Your task to perform on an android device: Open calendar and show me the second week of next month Image 0: 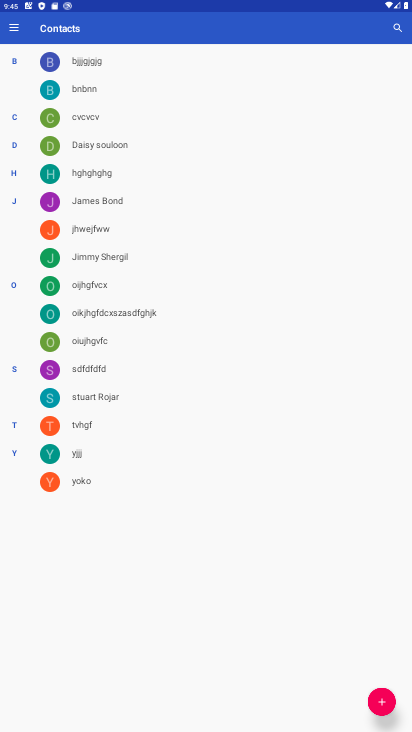
Step 0: press home button
Your task to perform on an android device: Open calendar and show me the second week of next month Image 1: 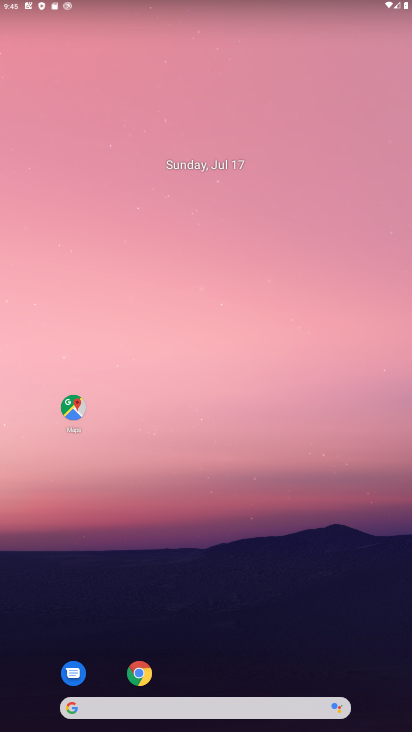
Step 1: drag from (225, 679) to (249, 80)
Your task to perform on an android device: Open calendar and show me the second week of next month Image 2: 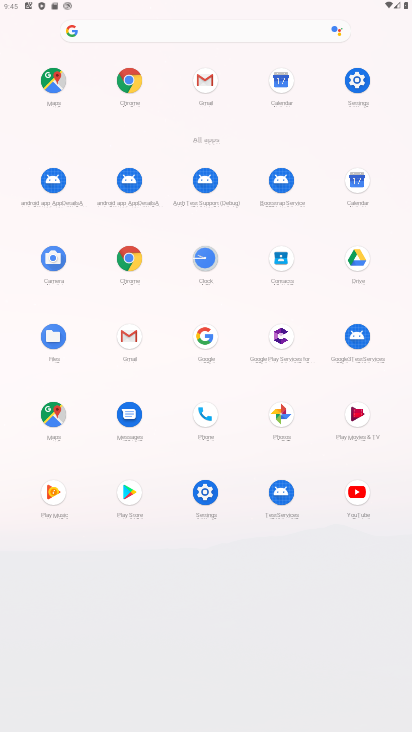
Step 2: click (357, 177)
Your task to perform on an android device: Open calendar and show me the second week of next month Image 3: 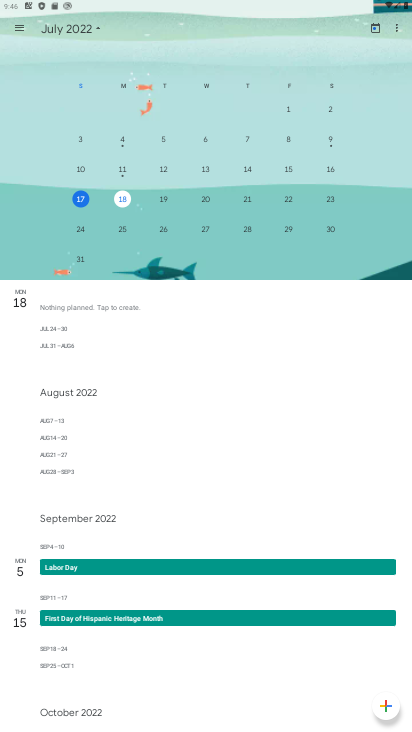
Step 3: drag from (380, 268) to (0, 235)
Your task to perform on an android device: Open calendar and show me the second week of next month Image 4: 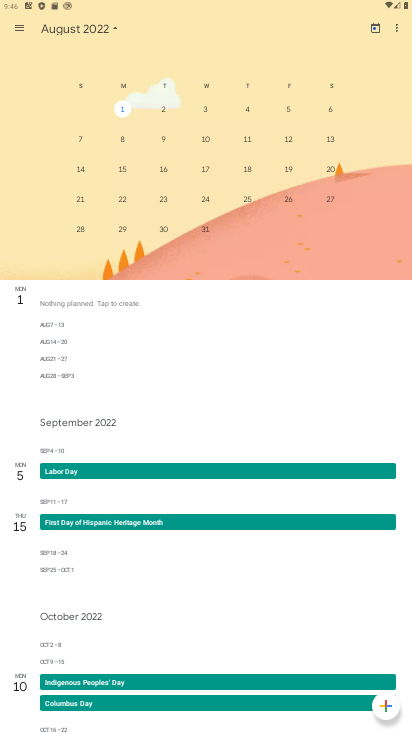
Step 4: click (205, 135)
Your task to perform on an android device: Open calendar and show me the second week of next month Image 5: 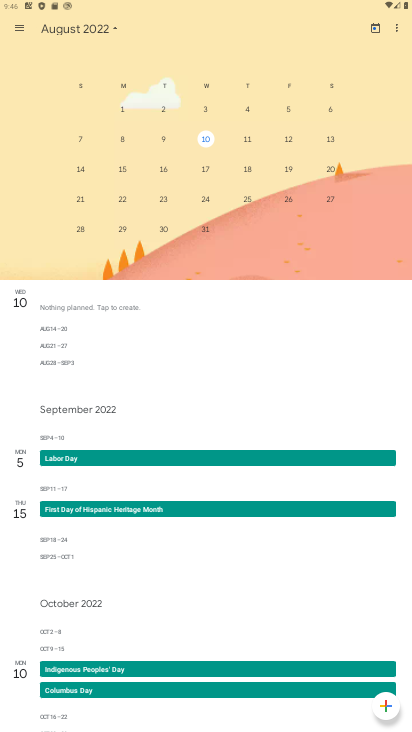
Step 5: task complete